Your task to perform on an android device: turn on bluetooth scan Image 0: 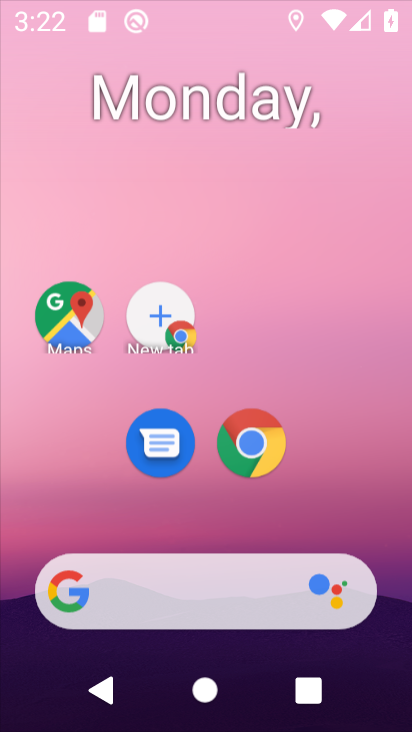
Step 0: press home button
Your task to perform on an android device: turn on bluetooth scan Image 1: 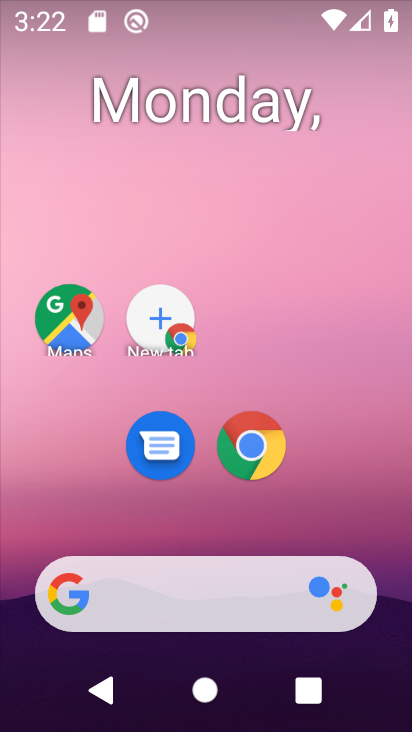
Step 1: drag from (215, 524) to (199, 30)
Your task to perform on an android device: turn on bluetooth scan Image 2: 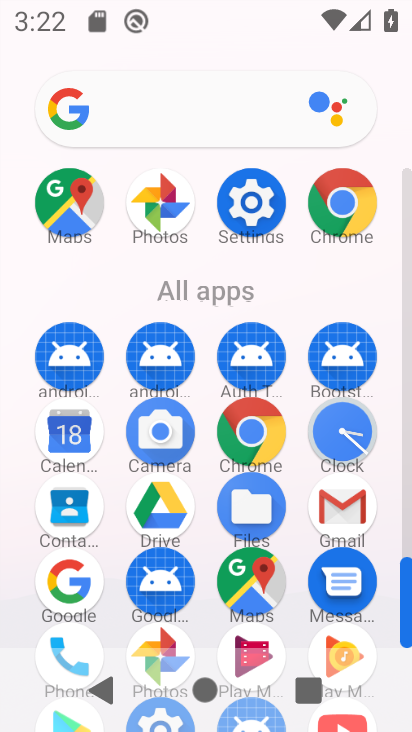
Step 2: click (249, 195)
Your task to perform on an android device: turn on bluetooth scan Image 3: 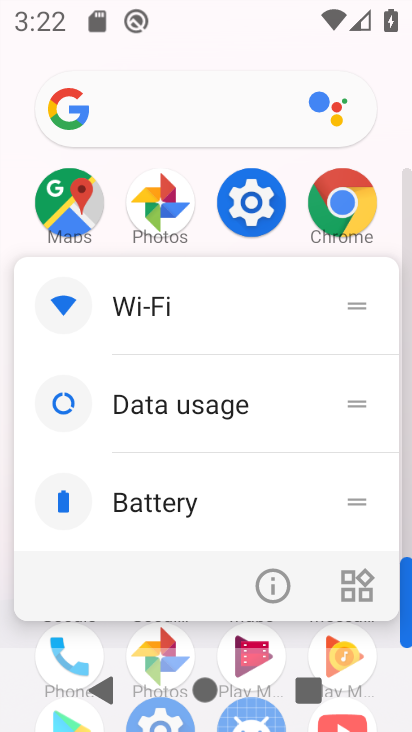
Step 3: click (248, 200)
Your task to perform on an android device: turn on bluetooth scan Image 4: 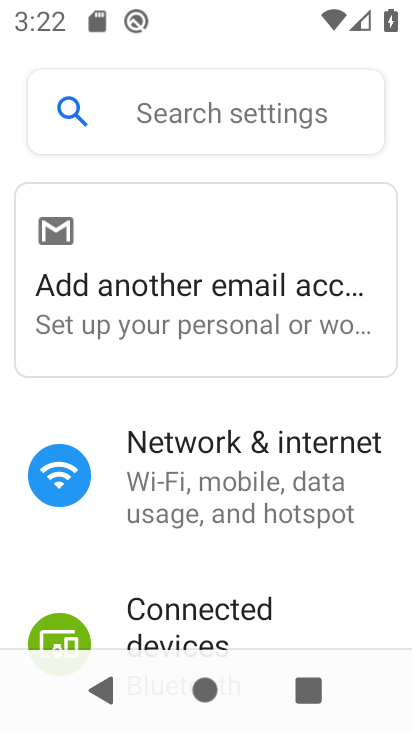
Step 4: drag from (210, 621) to (197, 258)
Your task to perform on an android device: turn on bluetooth scan Image 5: 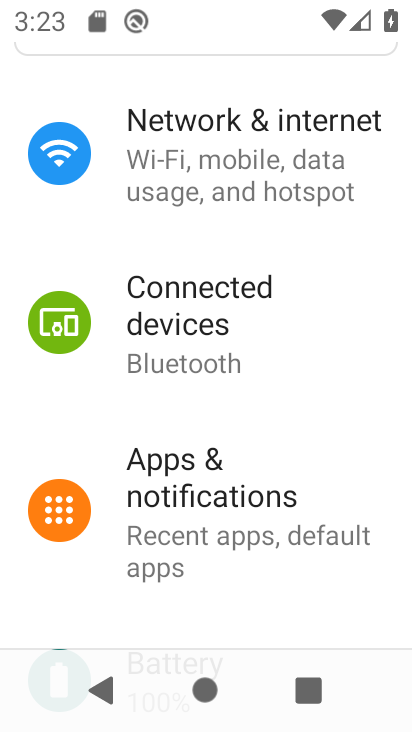
Step 5: drag from (214, 584) to (191, 89)
Your task to perform on an android device: turn on bluetooth scan Image 6: 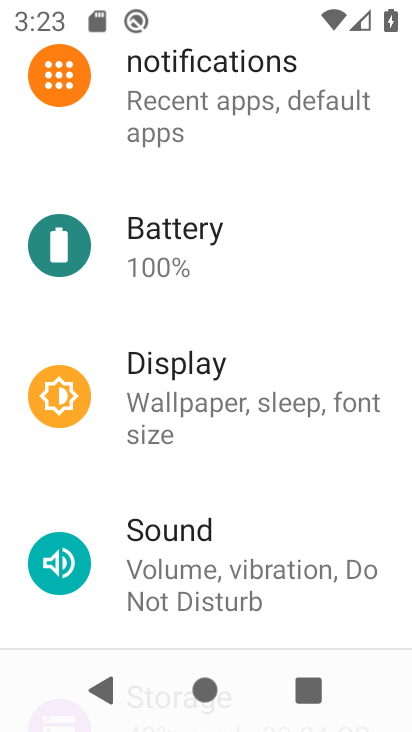
Step 6: drag from (226, 238) to (227, 123)
Your task to perform on an android device: turn on bluetooth scan Image 7: 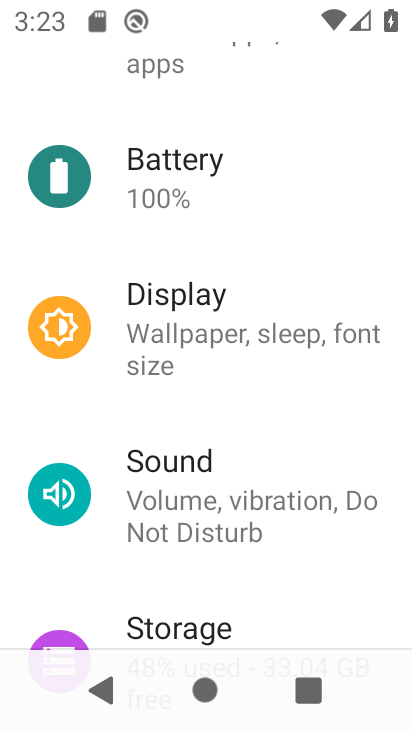
Step 7: drag from (247, 615) to (254, 76)
Your task to perform on an android device: turn on bluetooth scan Image 8: 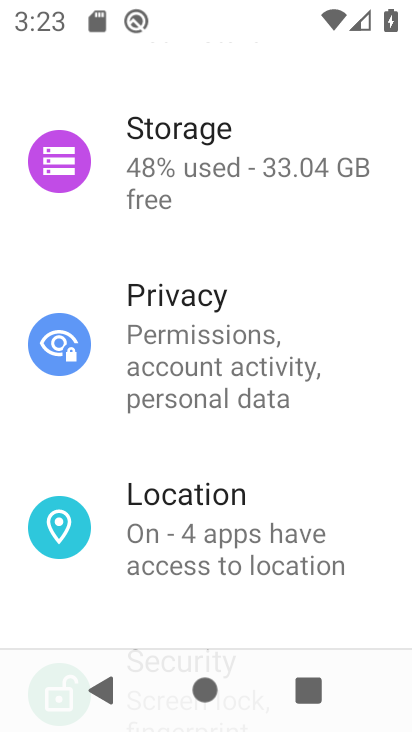
Step 8: click (236, 525)
Your task to perform on an android device: turn on bluetooth scan Image 9: 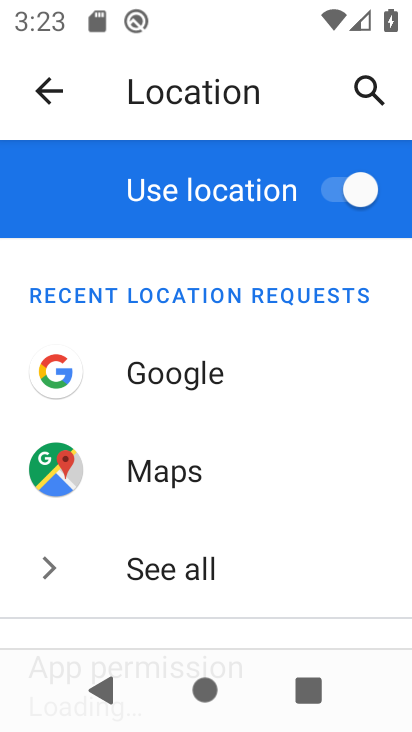
Step 9: drag from (214, 602) to (189, 234)
Your task to perform on an android device: turn on bluetooth scan Image 10: 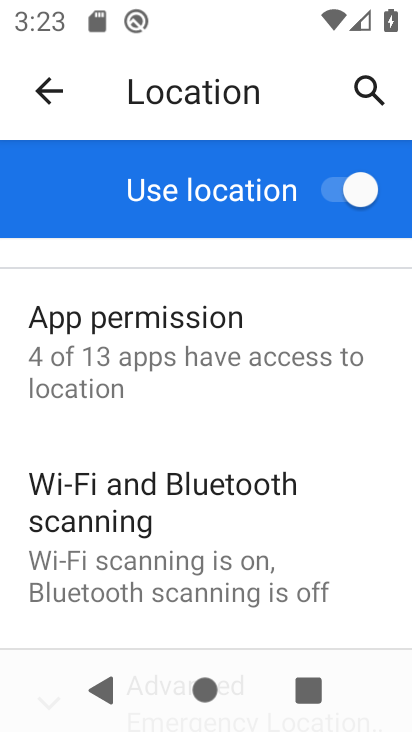
Step 10: click (195, 523)
Your task to perform on an android device: turn on bluetooth scan Image 11: 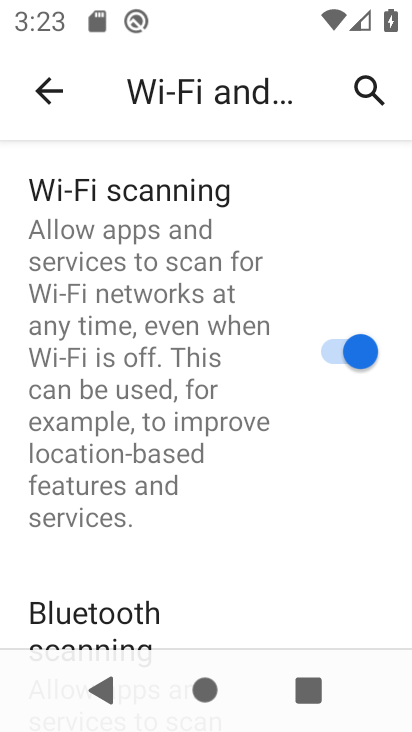
Step 11: drag from (262, 580) to (252, 156)
Your task to perform on an android device: turn on bluetooth scan Image 12: 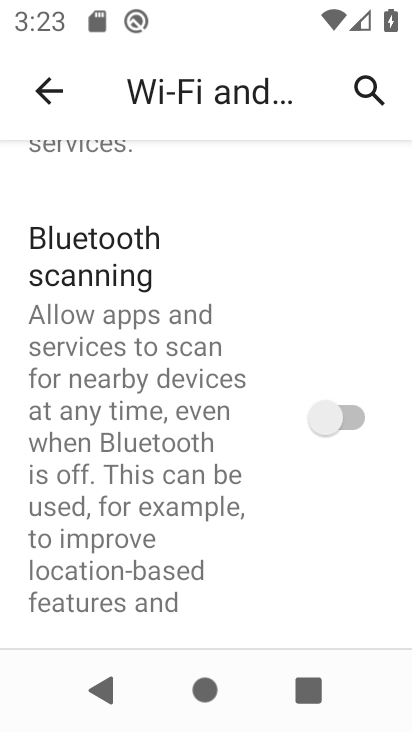
Step 12: click (338, 415)
Your task to perform on an android device: turn on bluetooth scan Image 13: 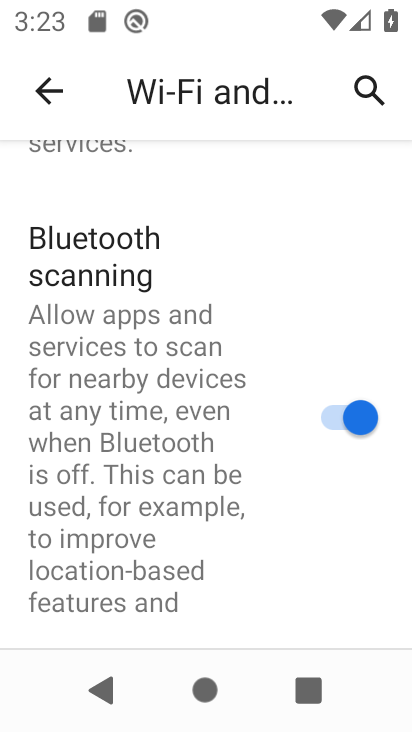
Step 13: task complete